Your task to perform on an android device: see creations saved in the google photos Image 0: 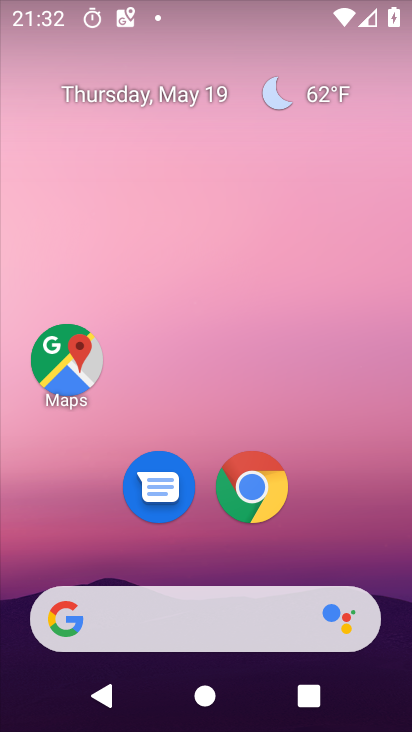
Step 0: drag from (304, 557) to (298, 51)
Your task to perform on an android device: see creations saved in the google photos Image 1: 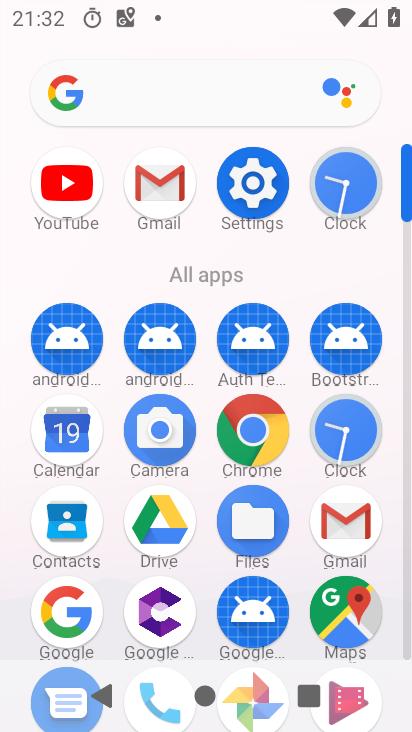
Step 1: drag from (285, 570) to (294, 299)
Your task to perform on an android device: see creations saved in the google photos Image 2: 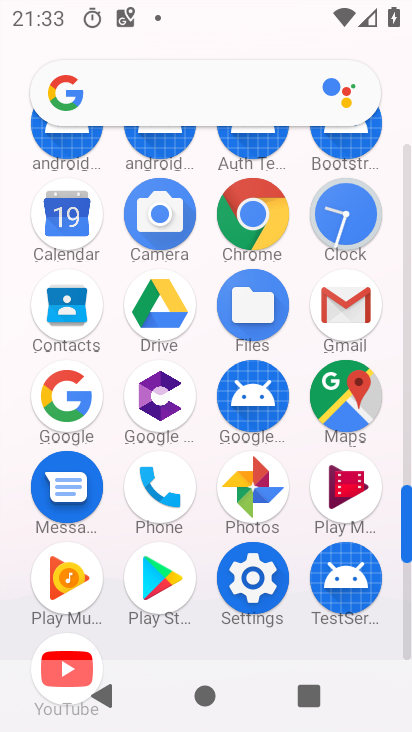
Step 2: click (264, 491)
Your task to perform on an android device: see creations saved in the google photos Image 3: 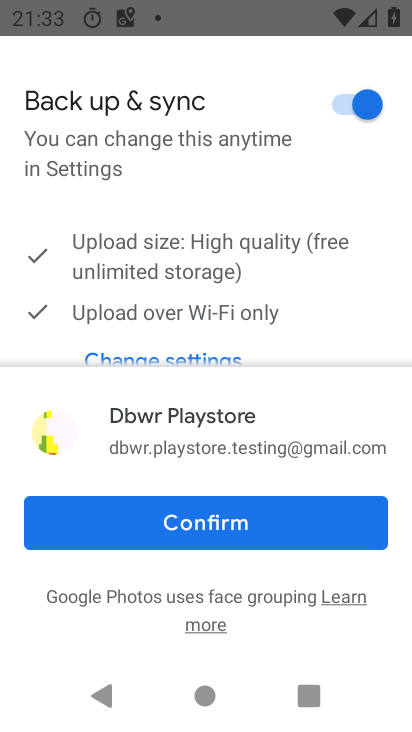
Step 3: click (290, 510)
Your task to perform on an android device: see creations saved in the google photos Image 4: 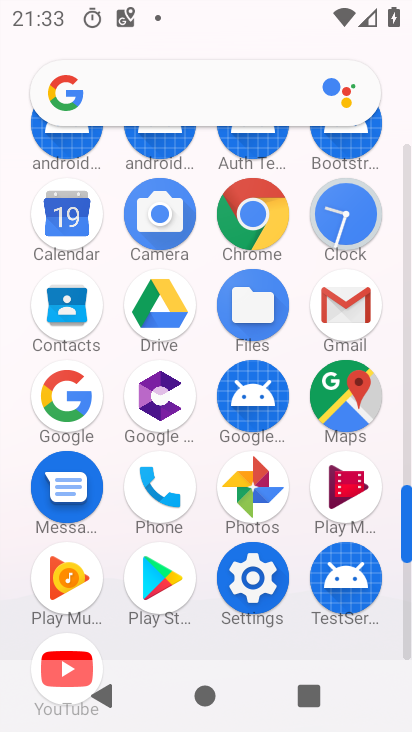
Step 4: click (258, 497)
Your task to perform on an android device: see creations saved in the google photos Image 5: 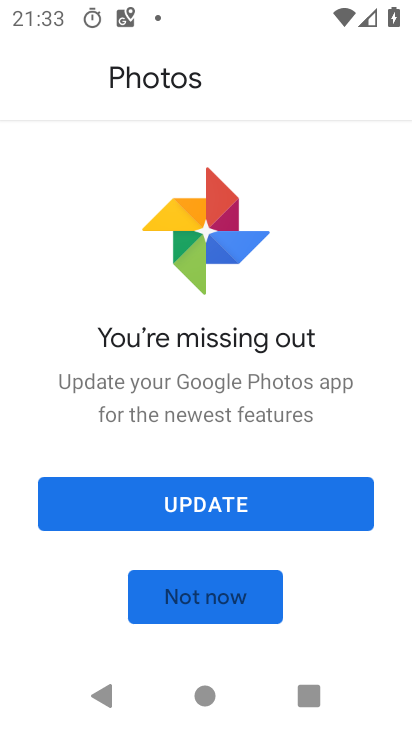
Step 5: click (238, 505)
Your task to perform on an android device: see creations saved in the google photos Image 6: 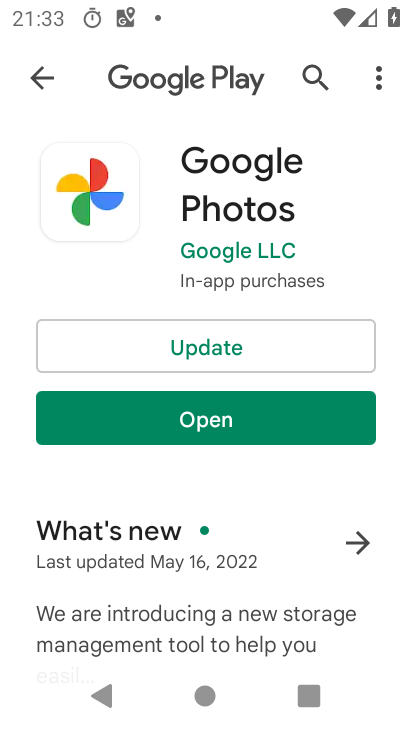
Step 6: click (246, 331)
Your task to perform on an android device: see creations saved in the google photos Image 7: 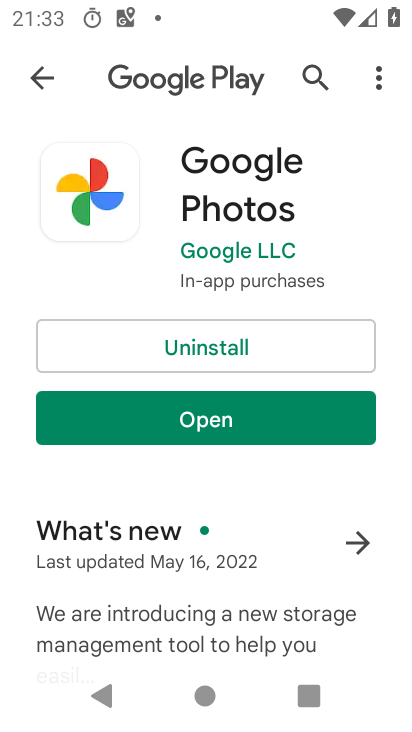
Step 7: click (270, 427)
Your task to perform on an android device: see creations saved in the google photos Image 8: 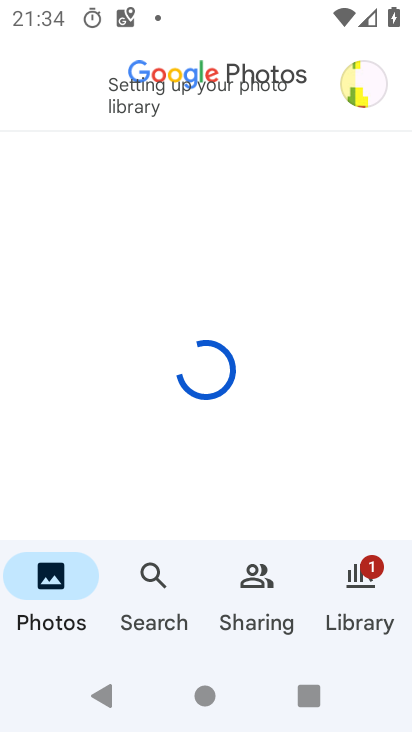
Step 8: click (152, 578)
Your task to perform on an android device: see creations saved in the google photos Image 9: 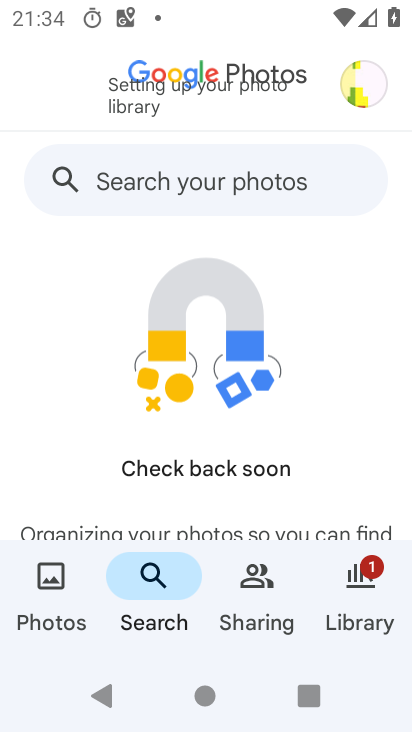
Step 9: drag from (225, 493) to (270, 127)
Your task to perform on an android device: see creations saved in the google photos Image 10: 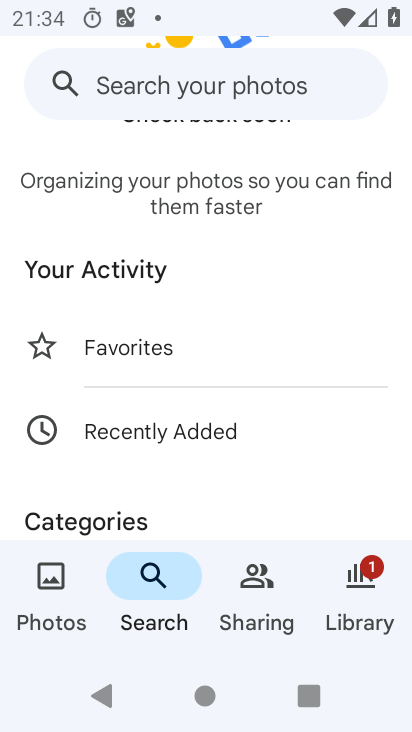
Step 10: drag from (276, 477) to (306, 233)
Your task to perform on an android device: see creations saved in the google photos Image 11: 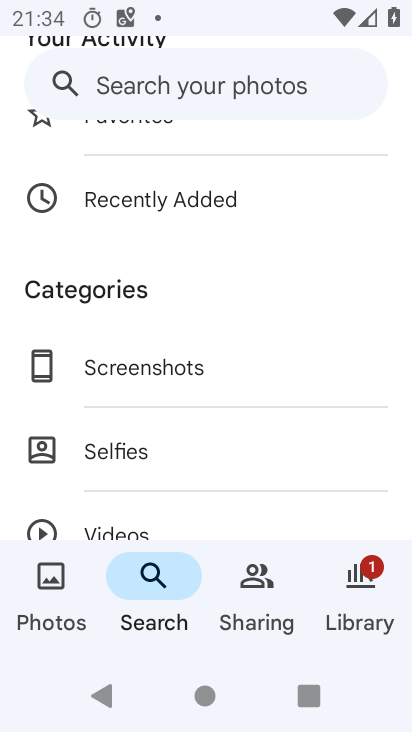
Step 11: drag from (275, 491) to (294, 158)
Your task to perform on an android device: see creations saved in the google photos Image 12: 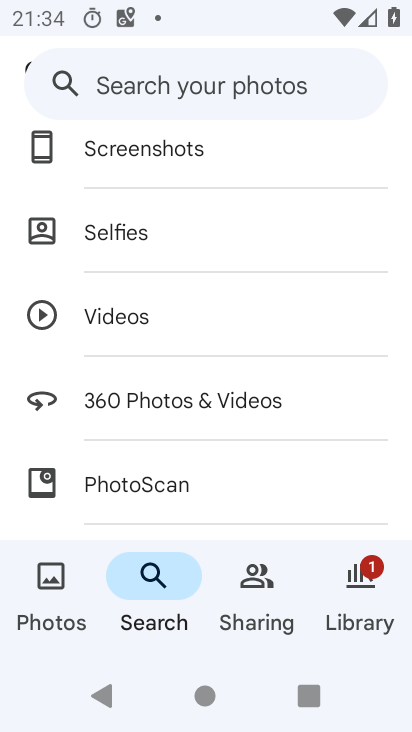
Step 12: drag from (199, 497) to (199, 277)
Your task to perform on an android device: see creations saved in the google photos Image 13: 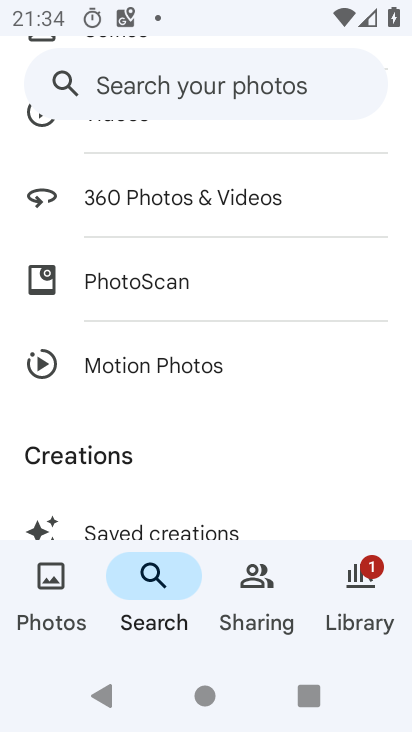
Step 13: drag from (224, 492) to (263, 274)
Your task to perform on an android device: see creations saved in the google photos Image 14: 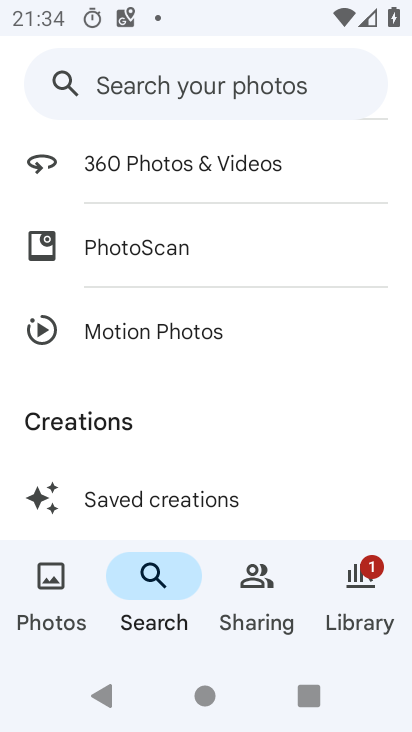
Step 14: click (188, 491)
Your task to perform on an android device: see creations saved in the google photos Image 15: 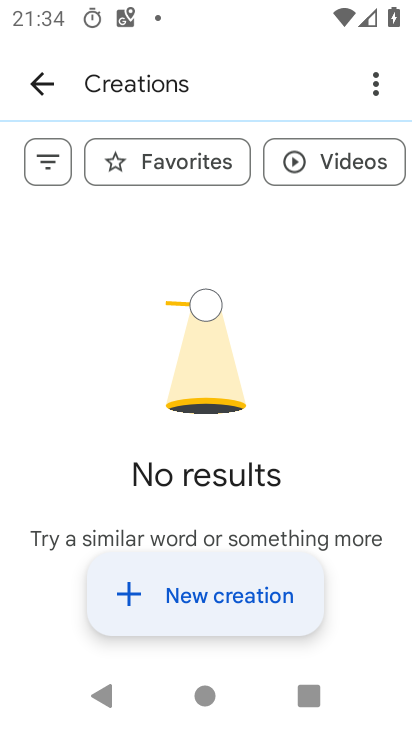
Step 15: task complete